Your task to perform on an android device: Check the weather Image 0: 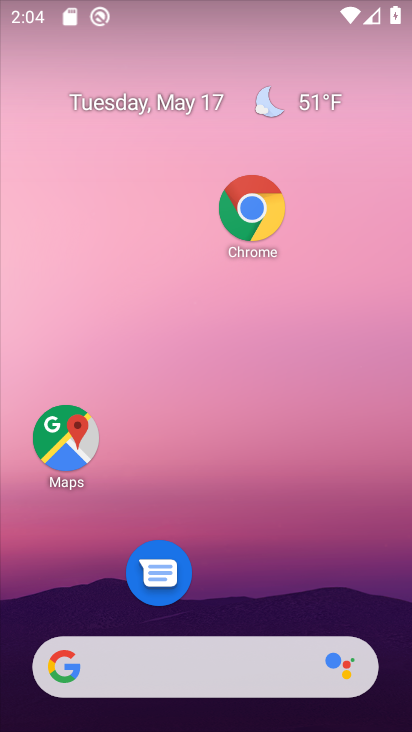
Step 0: click (192, 655)
Your task to perform on an android device: Check the weather Image 1: 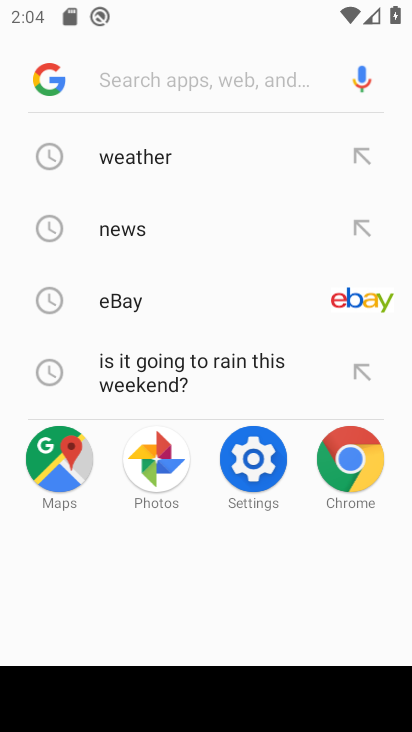
Step 1: click (132, 167)
Your task to perform on an android device: Check the weather Image 2: 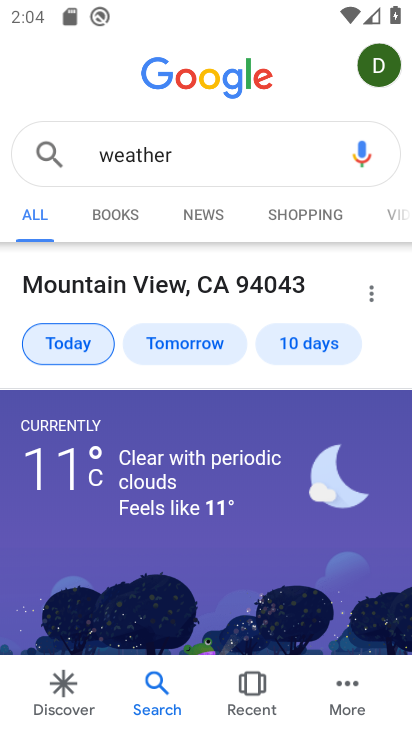
Step 2: task complete